Your task to perform on an android device: Open settings on Google Maps Image 0: 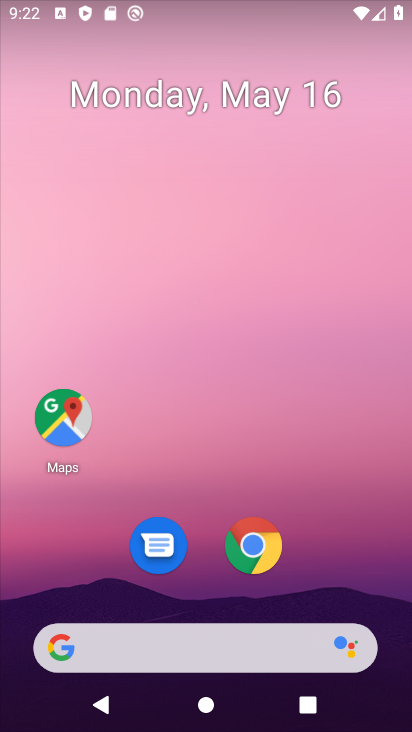
Step 0: click (45, 422)
Your task to perform on an android device: Open settings on Google Maps Image 1: 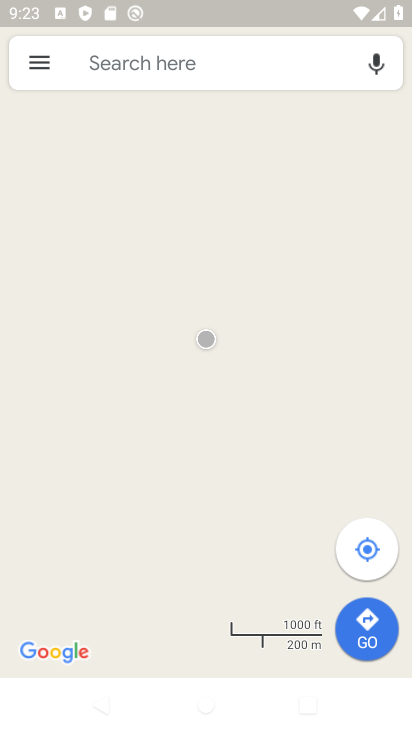
Step 1: click (35, 81)
Your task to perform on an android device: Open settings on Google Maps Image 2: 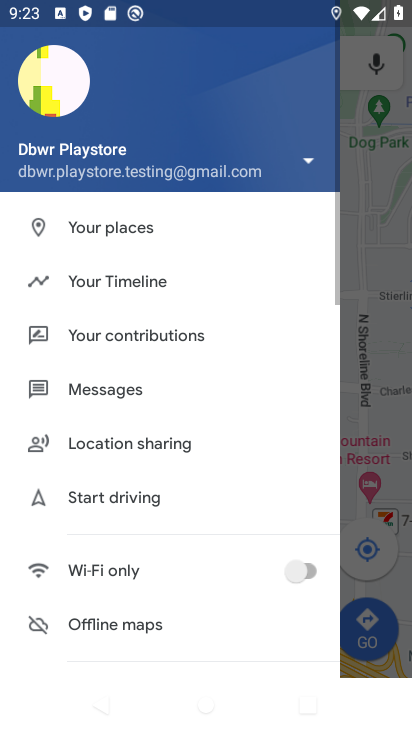
Step 2: drag from (79, 621) to (138, 190)
Your task to perform on an android device: Open settings on Google Maps Image 3: 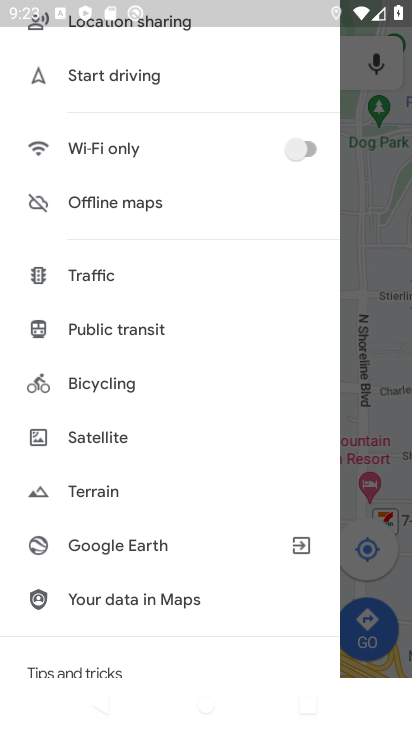
Step 3: drag from (93, 673) to (189, 220)
Your task to perform on an android device: Open settings on Google Maps Image 4: 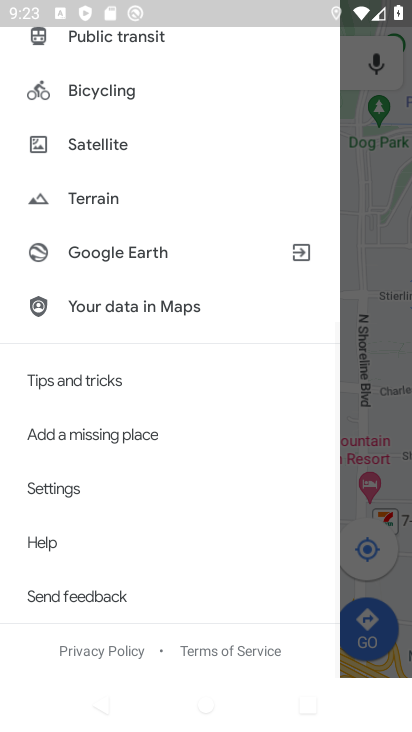
Step 4: click (73, 483)
Your task to perform on an android device: Open settings on Google Maps Image 5: 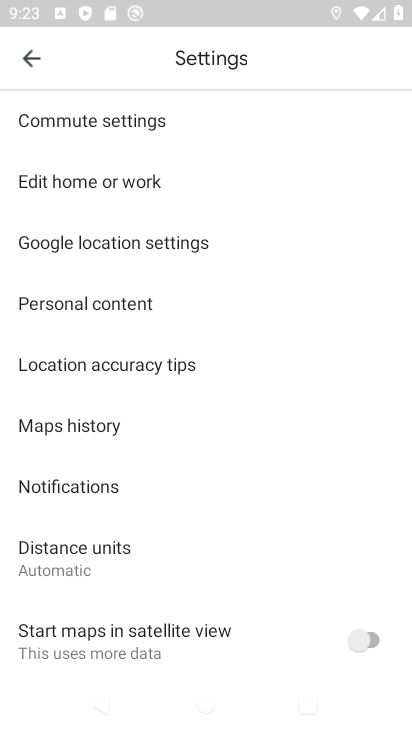
Step 5: task complete